Your task to perform on an android device: What is the recent news? Image 0: 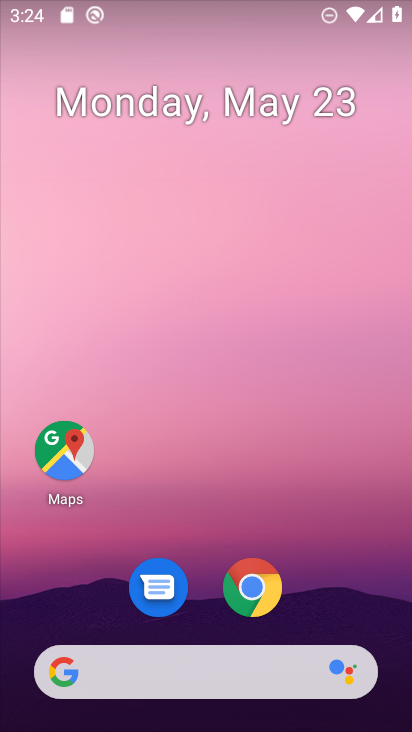
Step 0: drag from (198, 623) to (296, 13)
Your task to perform on an android device: What is the recent news? Image 1: 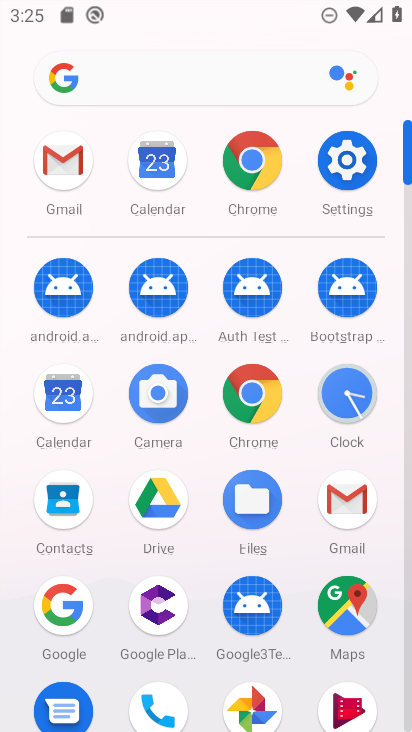
Step 1: click (172, 74)
Your task to perform on an android device: What is the recent news? Image 2: 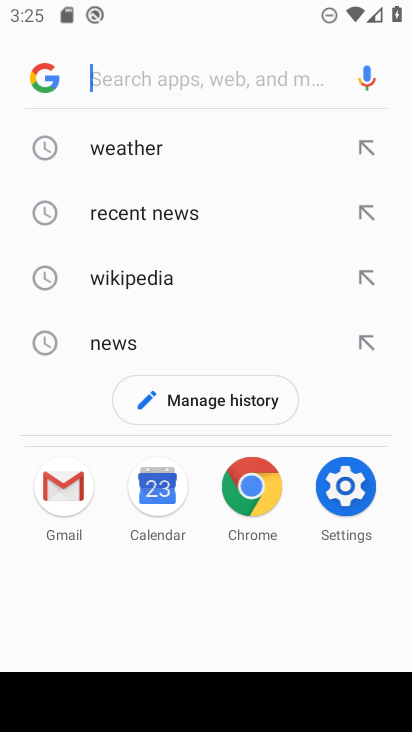
Step 2: type "recent news"
Your task to perform on an android device: What is the recent news? Image 3: 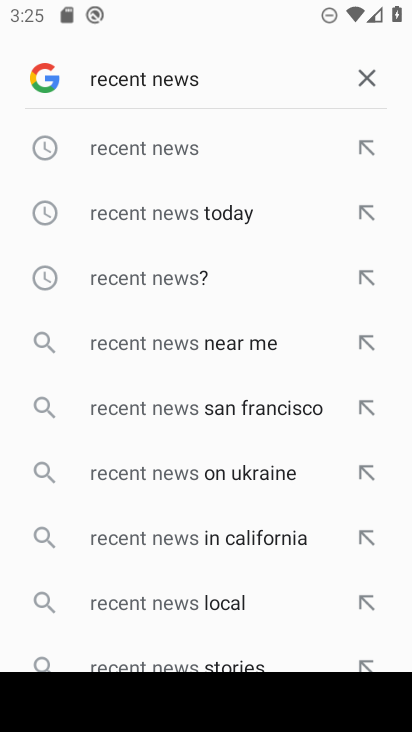
Step 3: click (200, 149)
Your task to perform on an android device: What is the recent news? Image 4: 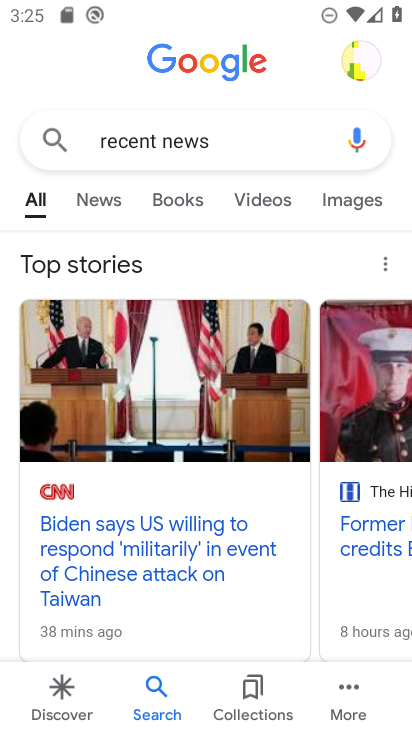
Step 4: task complete